Your task to perform on an android device: turn off sleep mode Image 0: 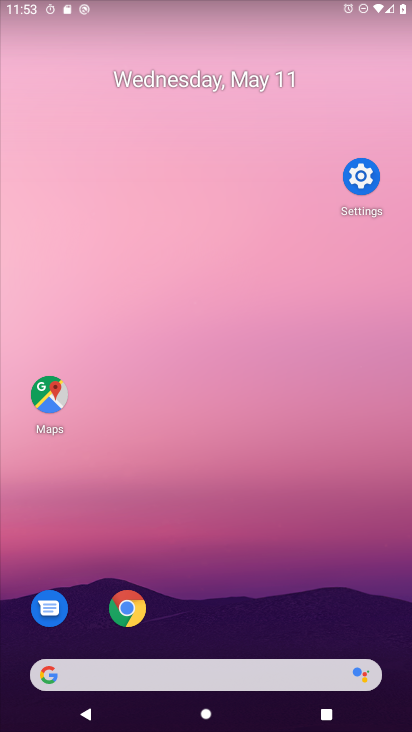
Step 0: drag from (245, 545) to (164, 186)
Your task to perform on an android device: turn off sleep mode Image 1: 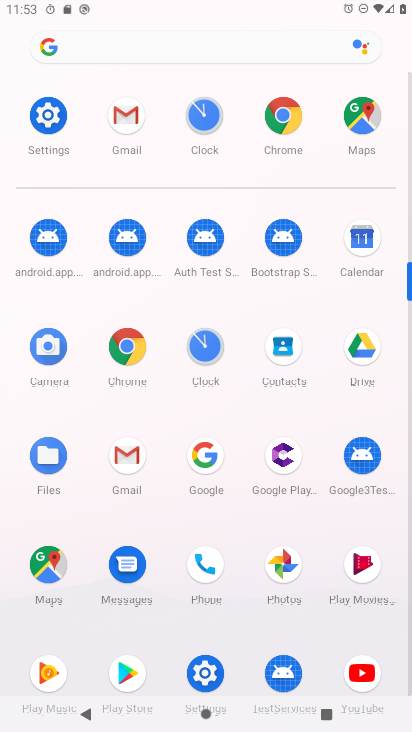
Step 1: click (55, 115)
Your task to perform on an android device: turn off sleep mode Image 2: 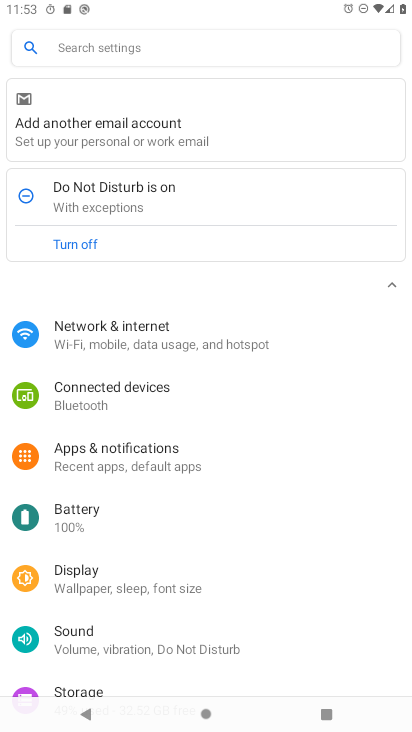
Step 2: click (76, 580)
Your task to perform on an android device: turn off sleep mode Image 3: 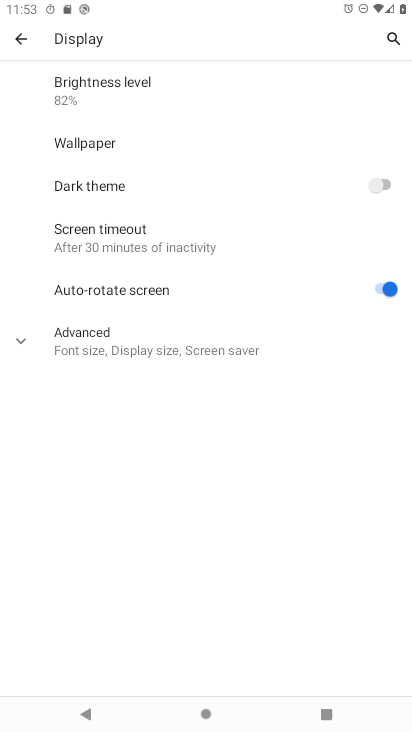
Step 3: click (81, 225)
Your task to perform on an android device: turn off sleep mode Image 4: 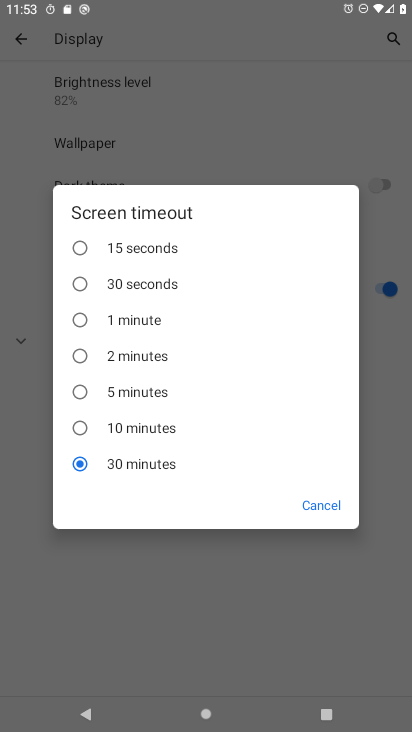
Step 4: click (77, 360)
Your task to perform on an android device: turn off sleep mode Image 5: 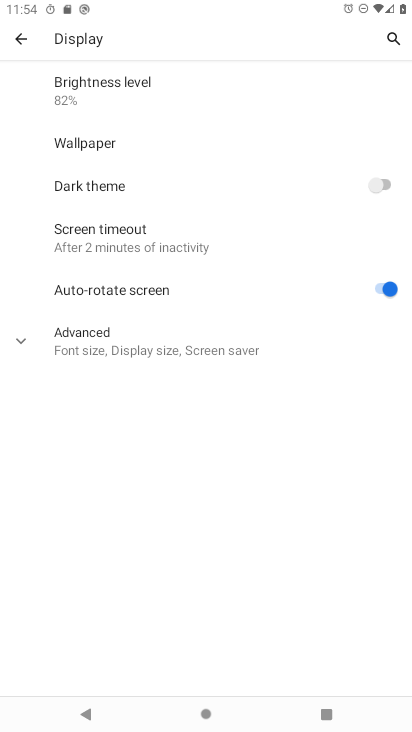
Step 5: task complete